Your task to perform on an android device: What is the news today? Image 0: 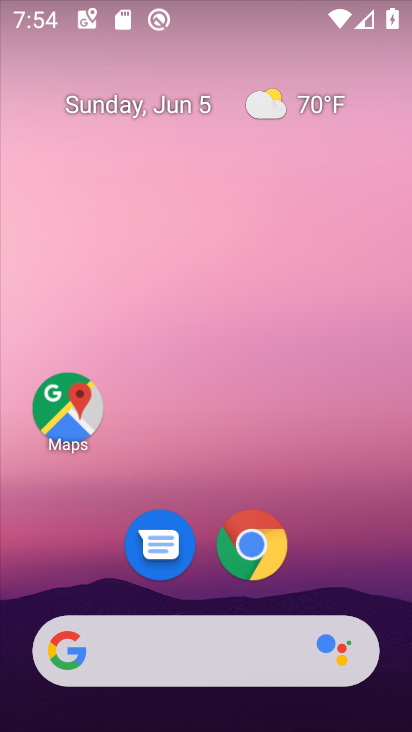
Step 0: drag from (293, 653) to (277, 140)
Your task to perform on an android device: What is the news today? Image 1: 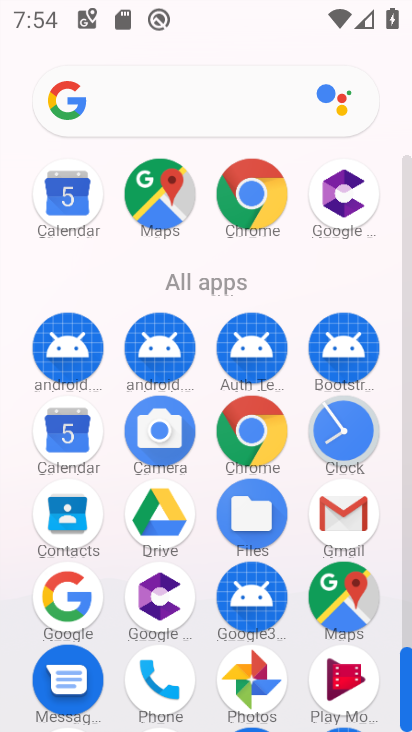
Step 1: click (71, 589)
Your task to perform on an android device: What is the news today? Image 2: 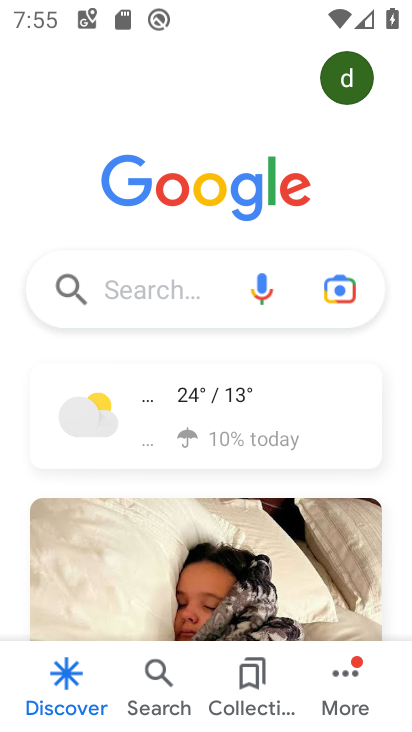
Step 2: click (170, 262)
Your task to perform on an android device: What is the news today? Image 3: 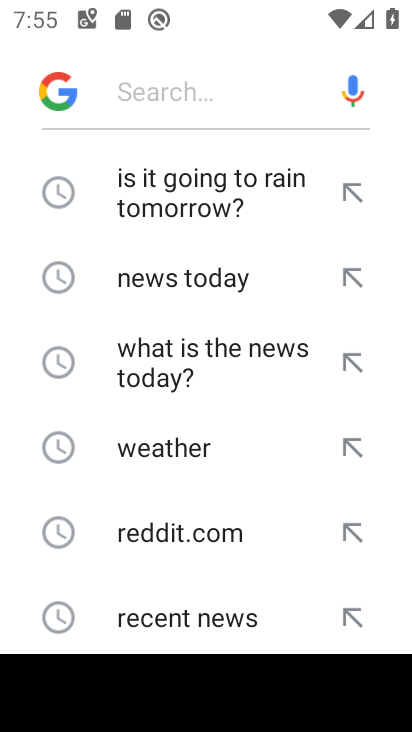
Step 3: click (194, 281)
Your task to perform on an android device: What is the news today? Image 4: 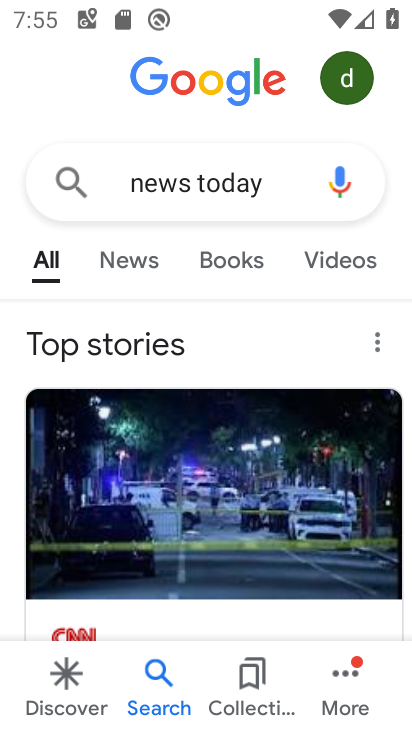
Step 4: task complete